Your task to perform on an android device: toggle translation in the chrome app Image 0: 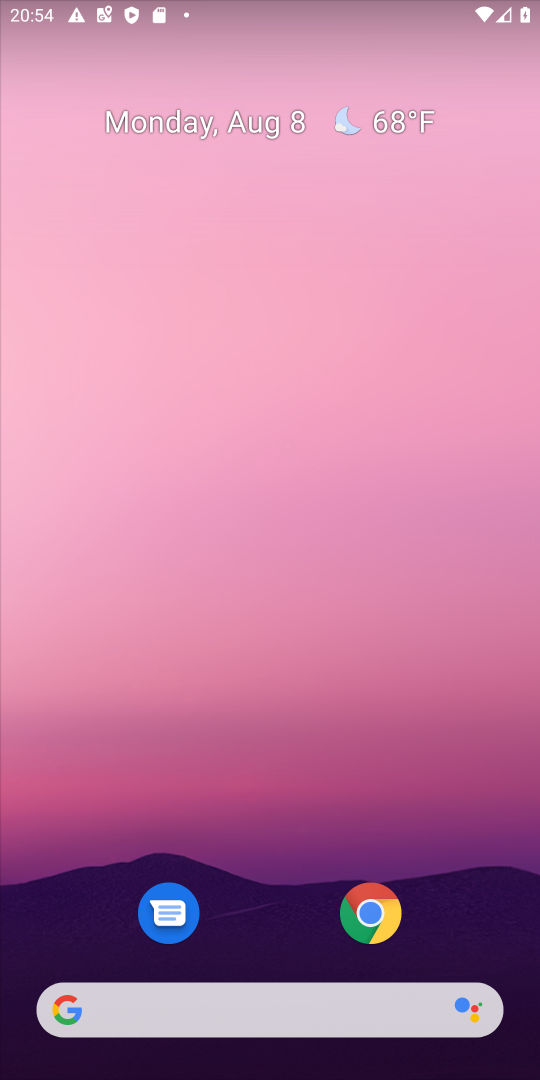
Step 0: click (370, 909)
Your task to perform on an android device: toggle translation in the chrome app Image 1: 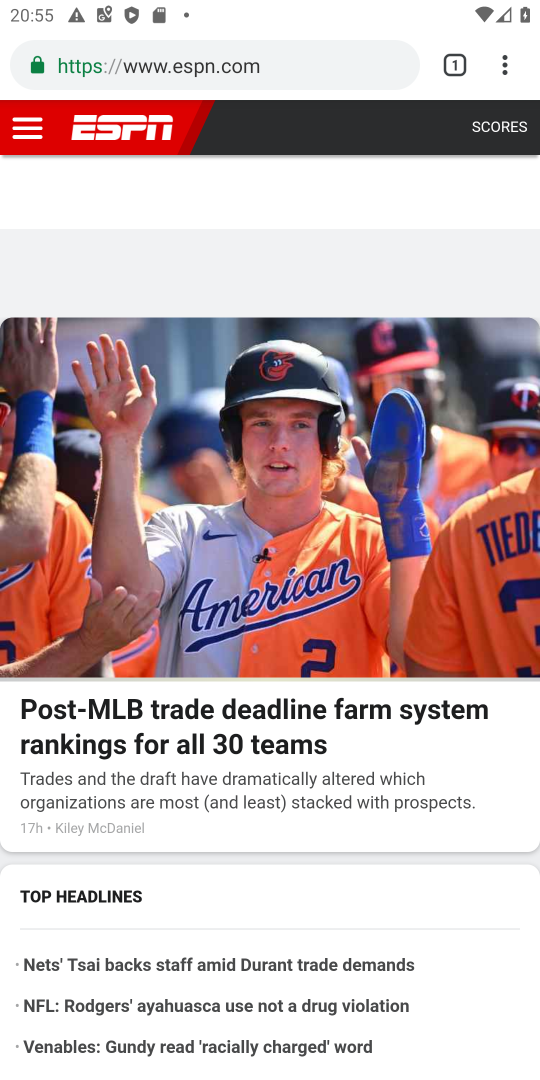
Step 1: drag from (502, 66) to (318, 860)
Your task to perform on an android device: toggle translation in the chrome app Image 2: 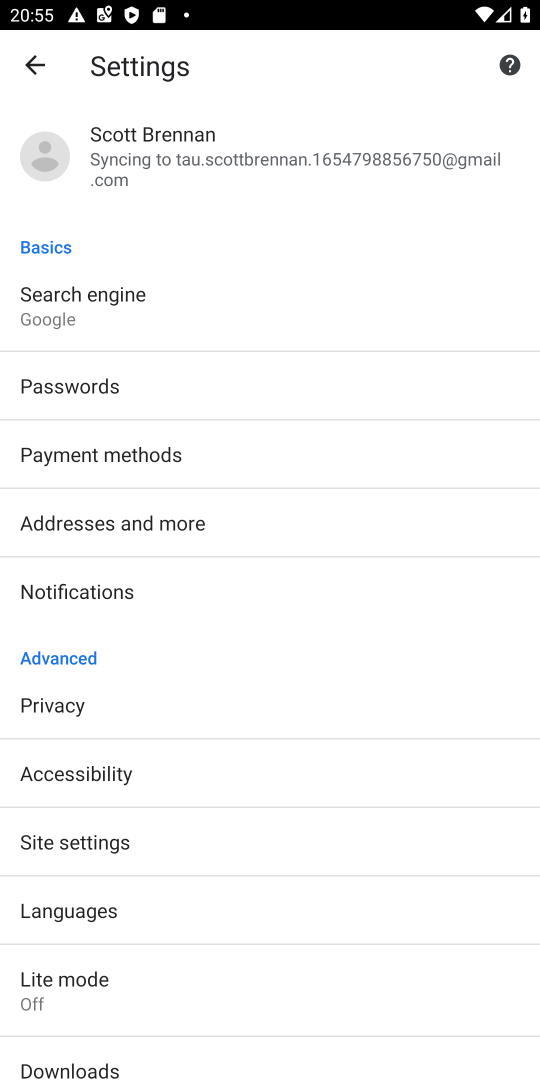
Step 2: click (81, 907)
Your task to perform on an android device: toggle translation in the chrome app Image 3: 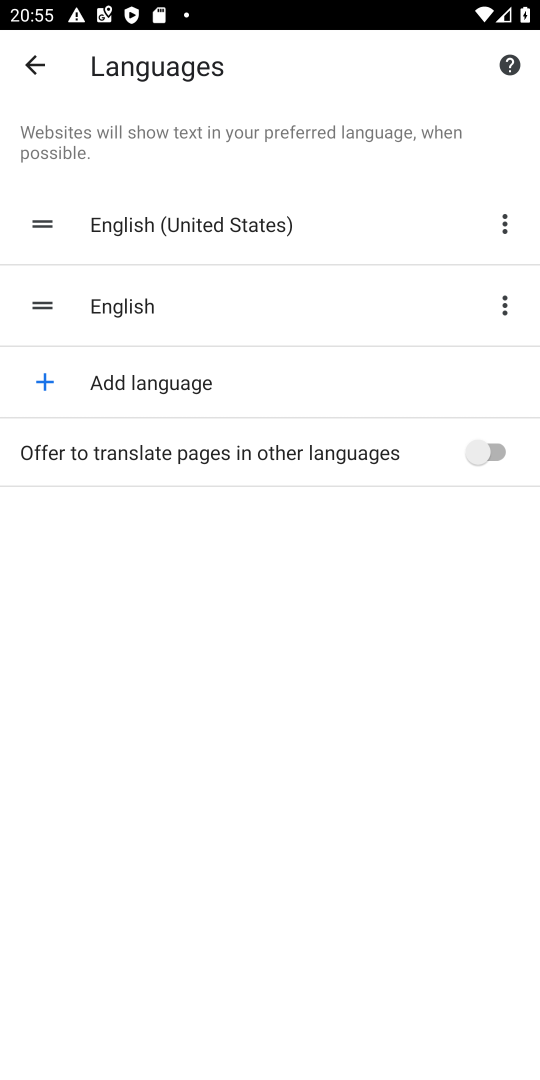
Step 3: click (481, 461)
Your task to perform on an android device: toggle translation in the chrome app Image 4: 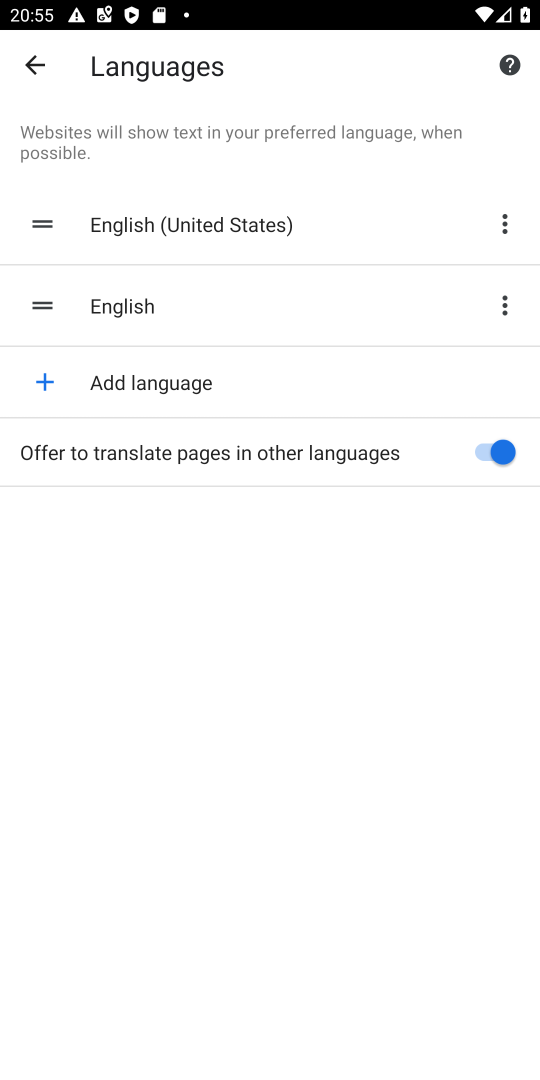
Step 4: task complete